Your task to perform on an android device: Open the map Image 0: 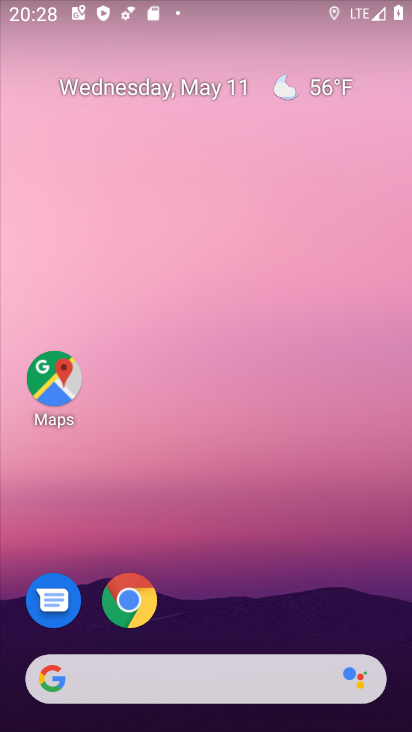
Step 0: click (53, 381)
Your task to perform on an android device: Open the map Image 1: 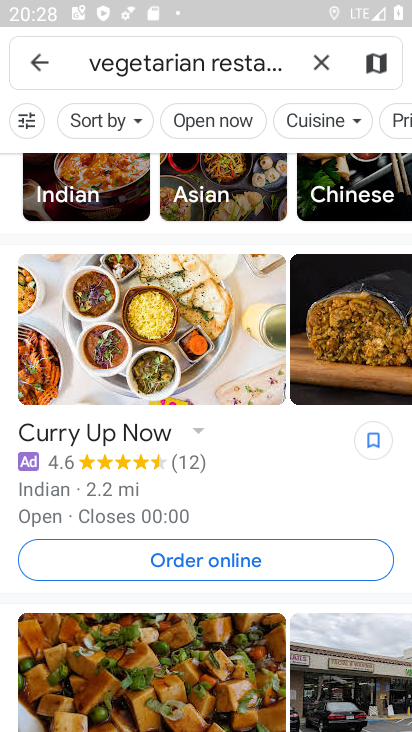
Step 1: task complete